Your task to perform on an android device: Open a new Chrome incognito window Image 0: 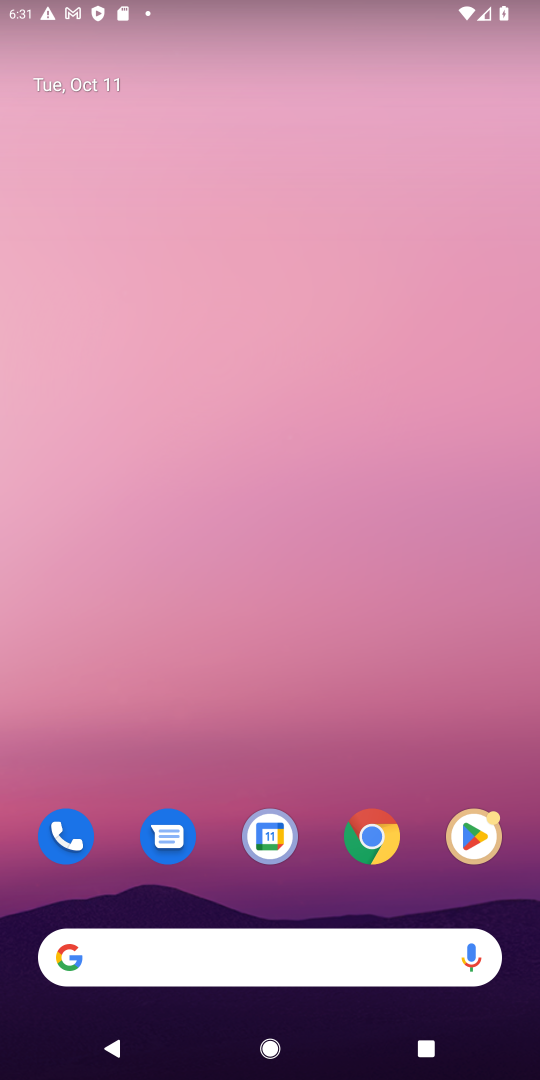
Step 0: click (371, 832)
Your task to perform on an android device: Open a new Chrome incognito window Image 1: 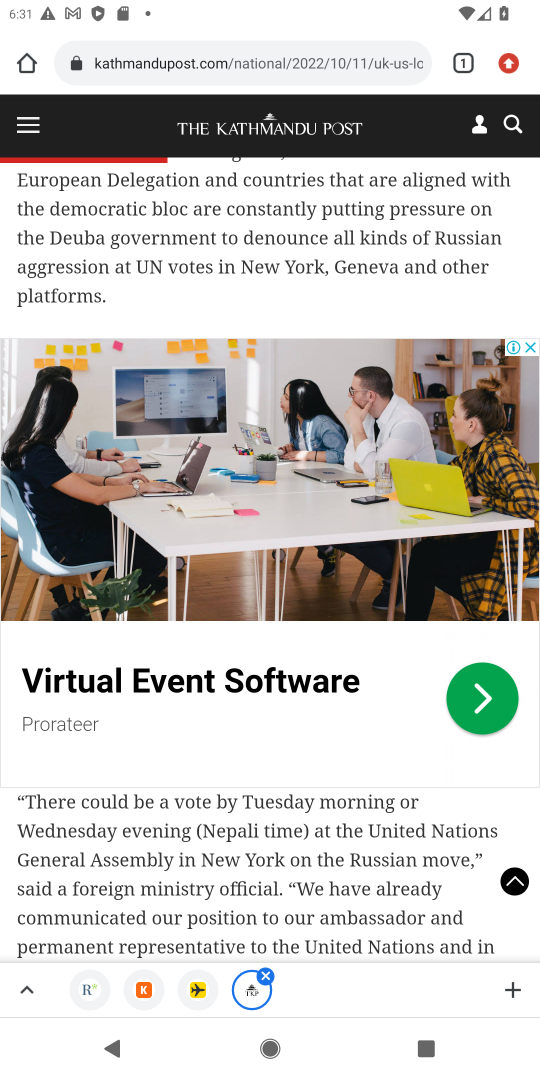
Step 1: click (507, 66)
Your task to perform on an android device: Open a new Chrome incognito window Image 2: 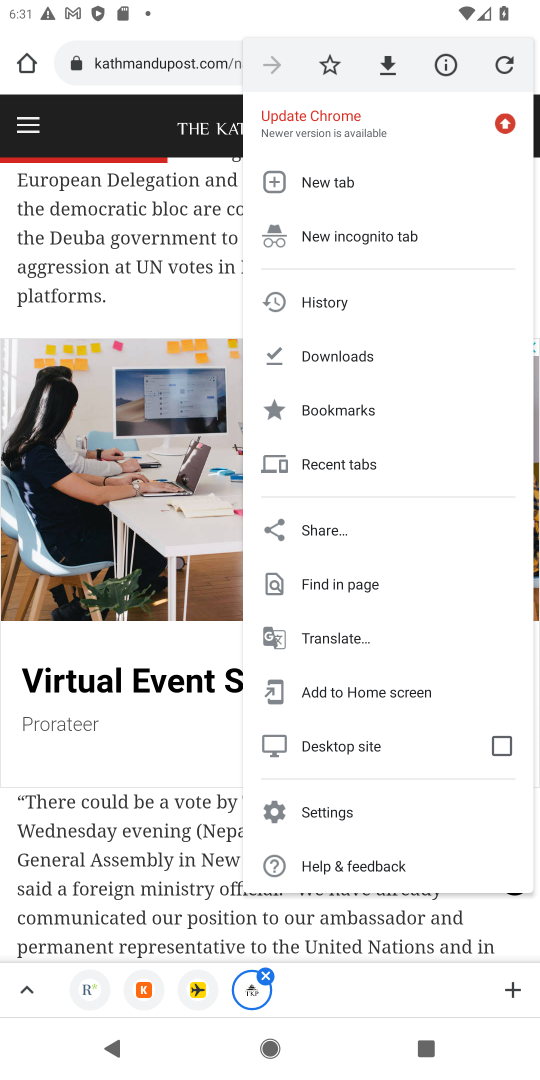
Step 2: click (335, 231)
Your task to perform on an android device: Open a new Chrome incognito window Image 3: 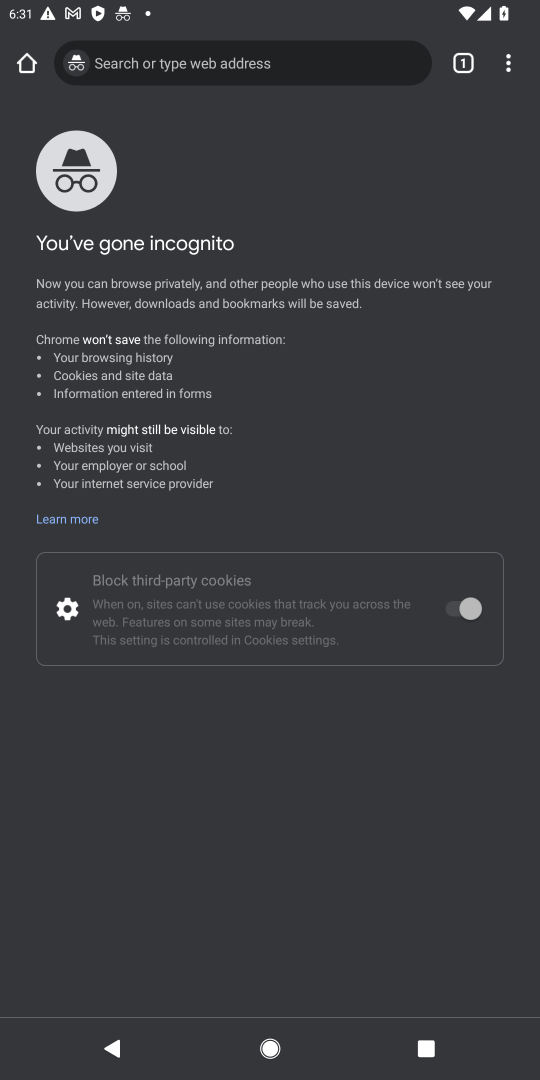
Step 3: task complete